Your task to perform on an android device: change the clock display to show seconds Image 0: 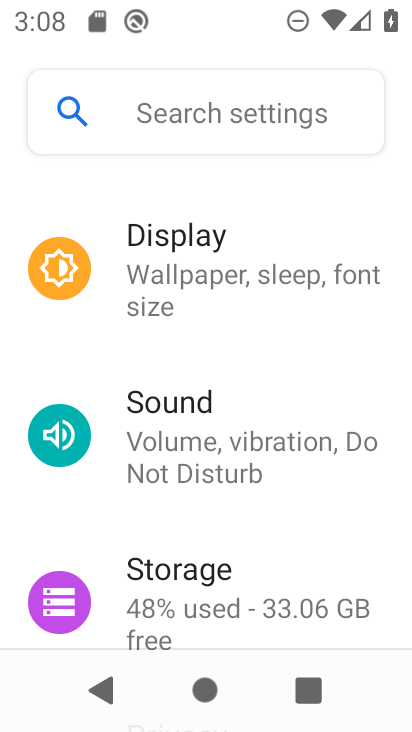
Step 0: press home button
Your task to perform on an android device: change the clock display to show seconds Image 1: 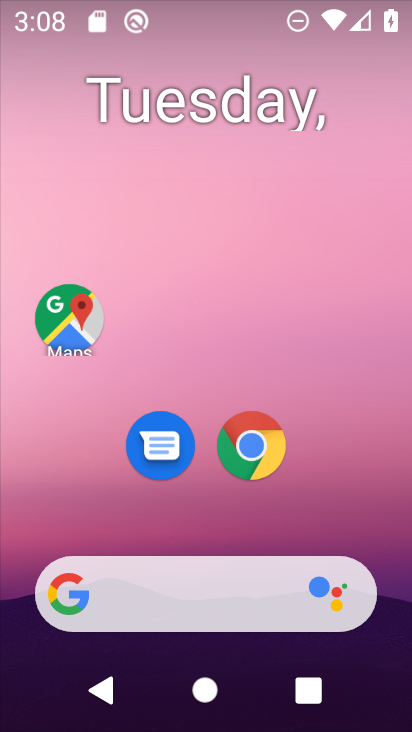
Step 1: drag from (353, 553) to (367, 37)
Your task to perform on an android device: change the clock display to show seconds Image 2: 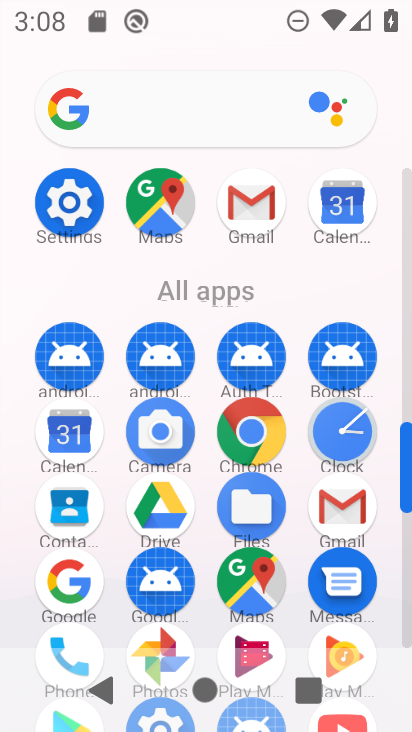
Step 2: click (333, 435)
Your task to perform on an android device: change the clock display to show seconds Image 3: 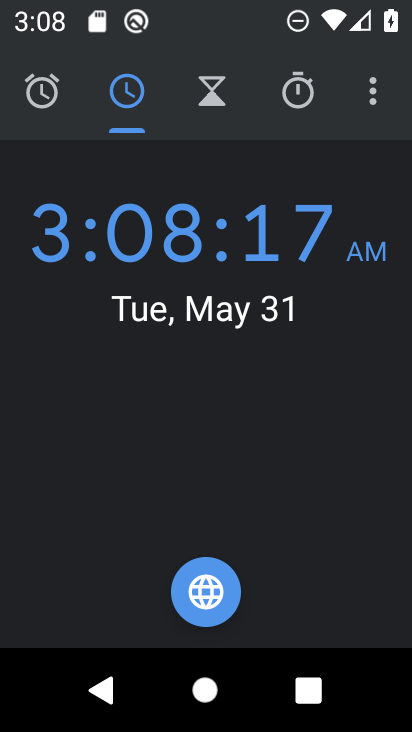
Step 3: click (372, 94)
Your task to perform on an android device: change the clock display to show seconds Image 4: 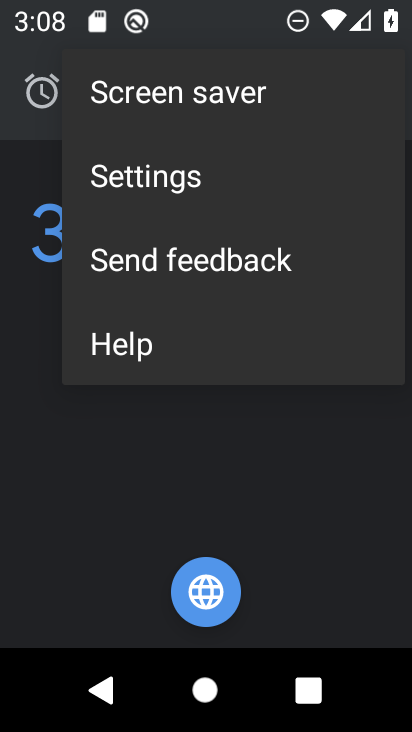
Step 4: click (116, 177)
Your task to perform on an android device: change the clock display to show seconds Image 5: 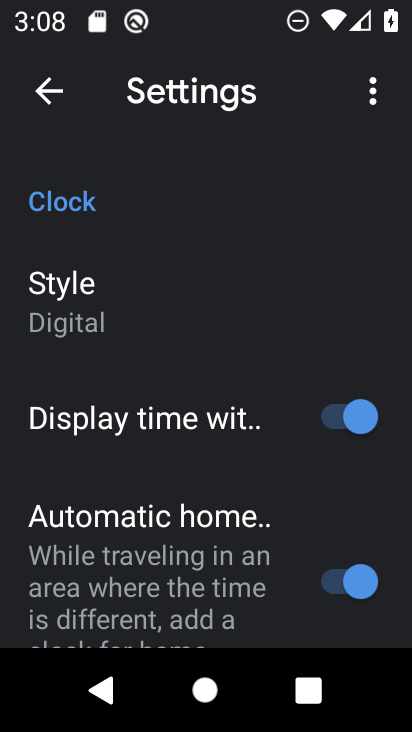
Step 5: task complete